Your task to perform on an android device: Find coffee shops on Maps Image 0: 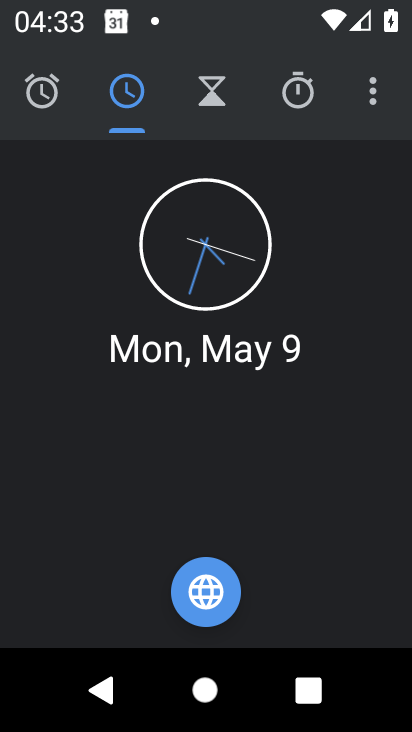
Step 0: press home button
Your task to perform on an android device: Find coffee shops on Maps Image 1: 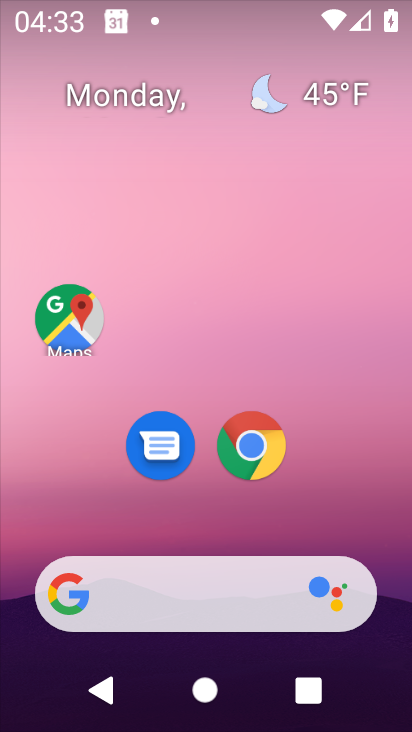
Step 1: click (79, 330)
Your task to perform on an android device: Find coffee shops on Maps Image 2: 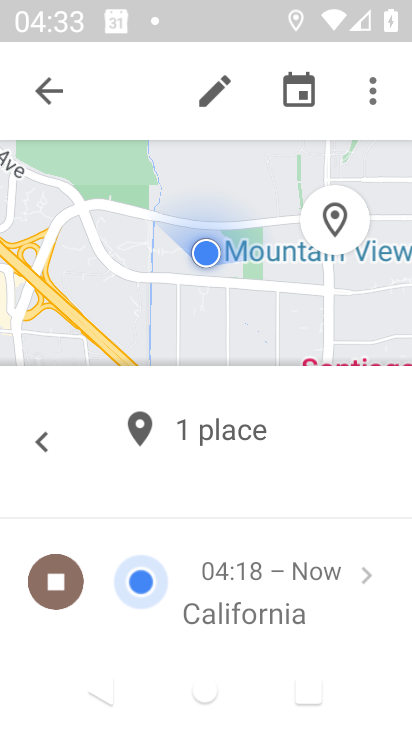
Step 2: click (57, 97)
Your task to perform on an android device: Find coffee shops on Maps Image 3: 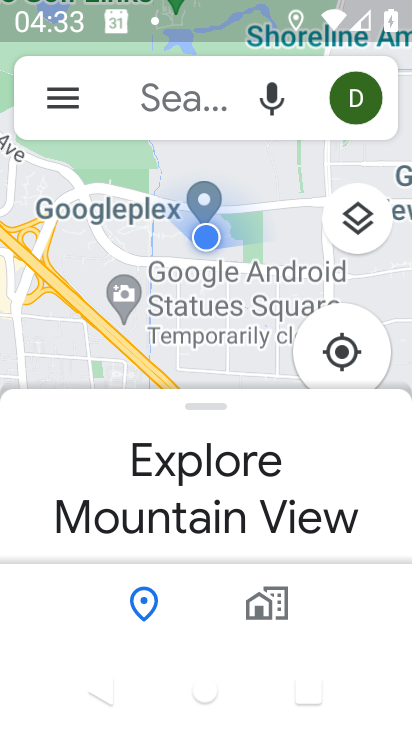
Step 3: click (202, 95)
Your task to perform on an android device: Find coffee shops on Maps Image 4: 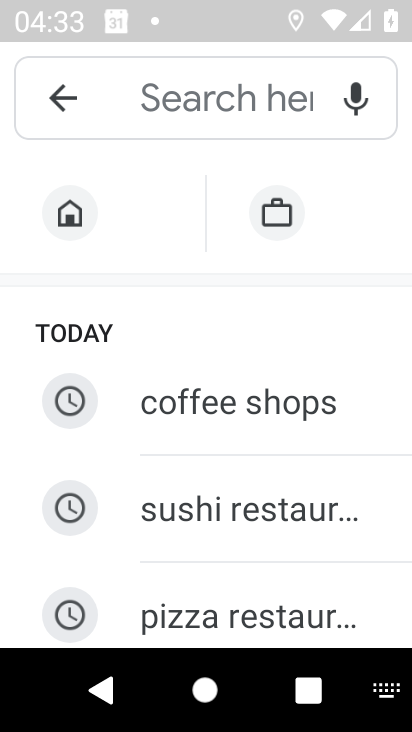
Step 4: type "coffee shops"
Your task to perform on an android device: Find coffee shops on Maps Image 5: 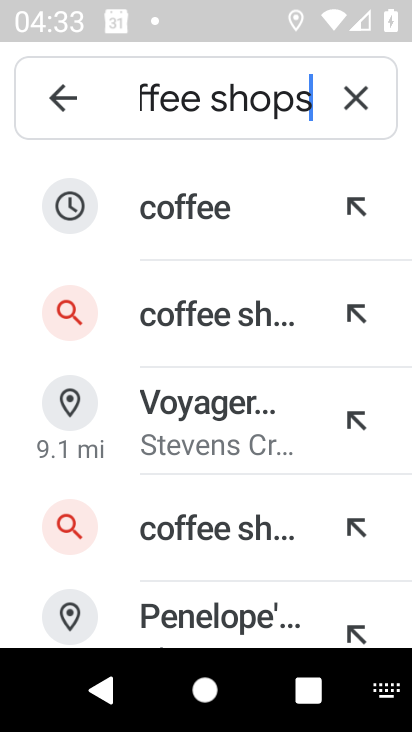
Step 5: click (187, 318)
Your task to perform on an android device: Find coffee shops on Maps Image 6: 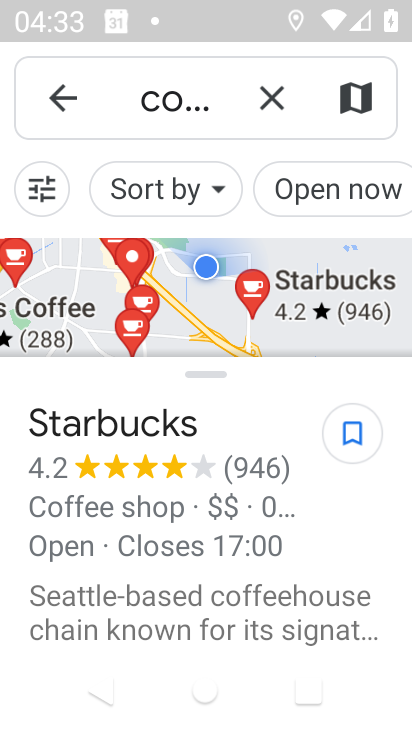
Step 6: task complete